Your task to perform on an android device: toggle data saver in the chrome app Image 0: 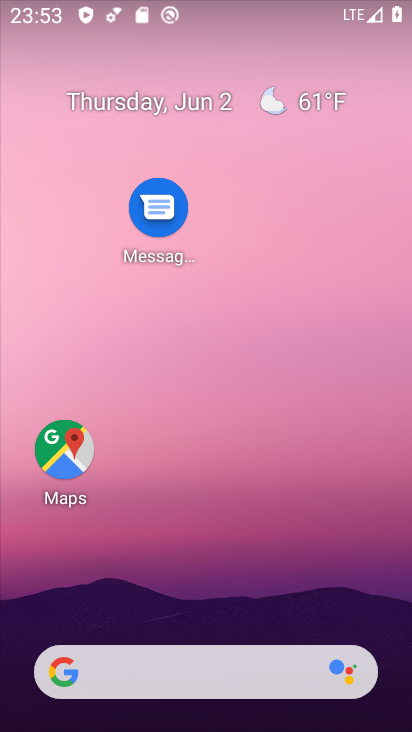
Step 0: drag from (199, 641) to (207, 16)
Your task to perform on an android device: toggle data saver in the chrome app Image 1: 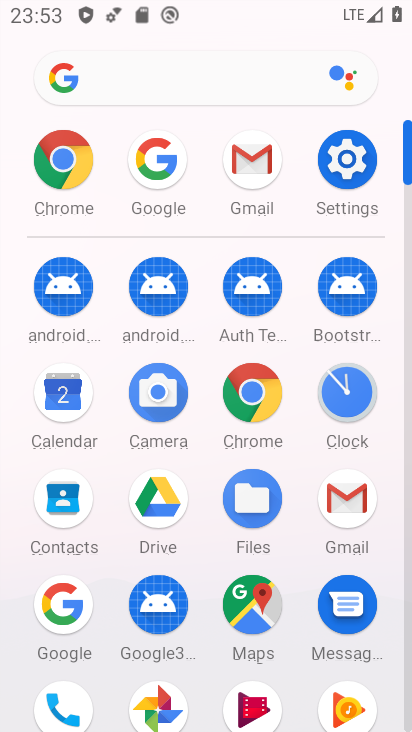
Step 1: click (256, 396)
Your task to perform on an android device: toggle data saver in the chrome app Image 2: 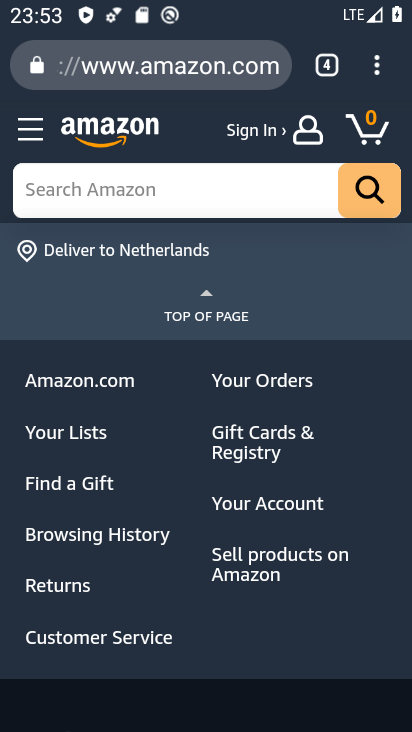
Step 2: click (377, 63)
Your task to perform on an android device: toggle data saver in the chrome app Image 3: 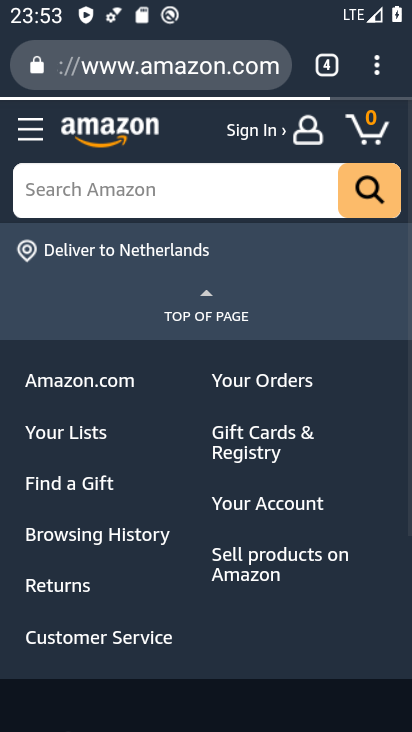
Step 3: drag from (375, 74) to (156, 639)
Your task to perform on an android device: toggle data saver in the chrome app Image 4: 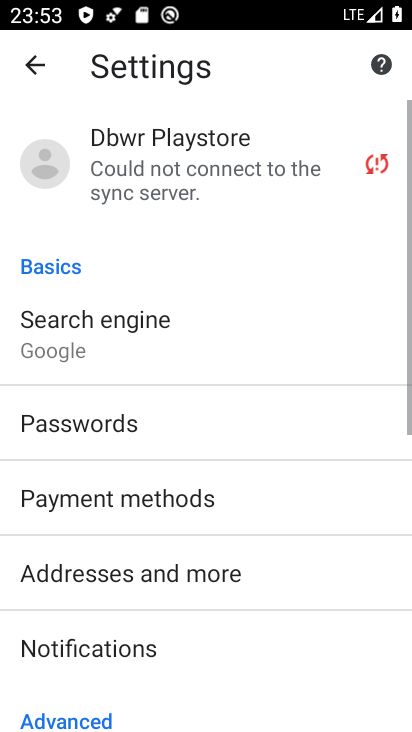
Step 4: drag from (217, 524) to (185, 50)
Your task to perform on an android device: toggle data saver in the chrome app Image 5: 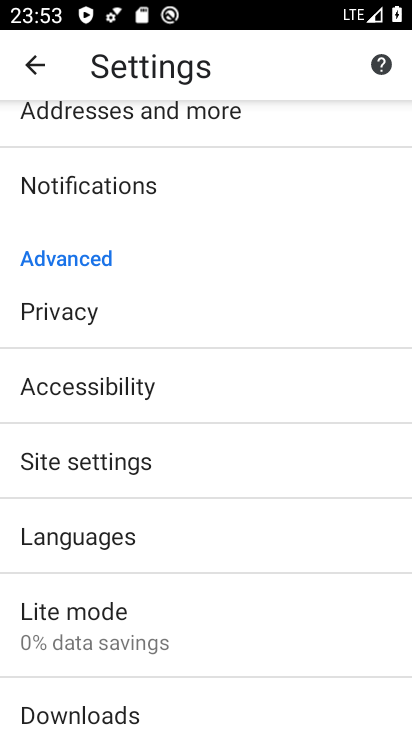
Step 5: click (85, 620)
Your task to perform on an android device: toggle data saver in the chrome app Image 6: 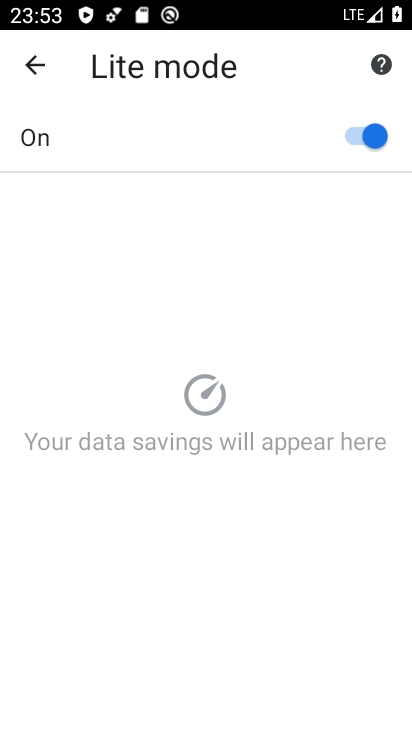
Step 6: click (358, 129)
Your task to perform on an android device: toggle data saver in the chrome app Image 7: 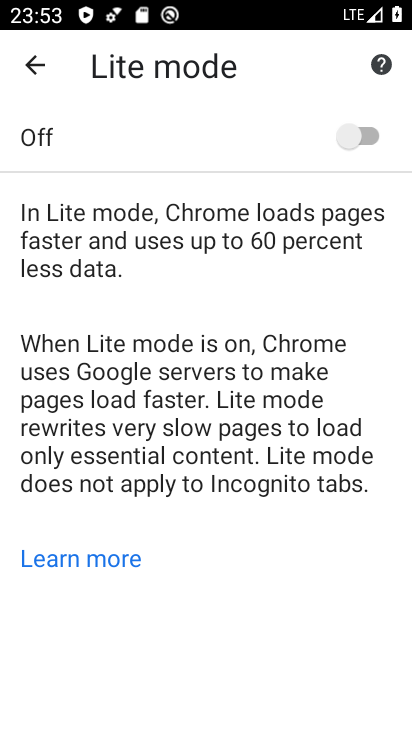
Step 7: task complete